Your task to perform on an android device: turn off sleep mode Image 0: 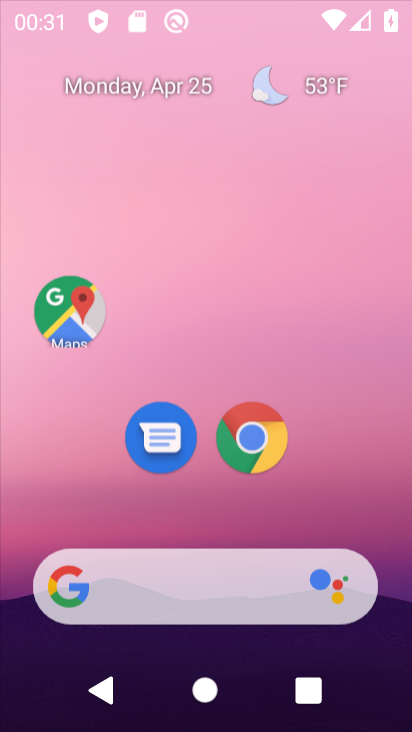
Step 0: drag from (310, 21) to (143, 1)
Your task to perform on an android device: turn off sleep mode Image 1: 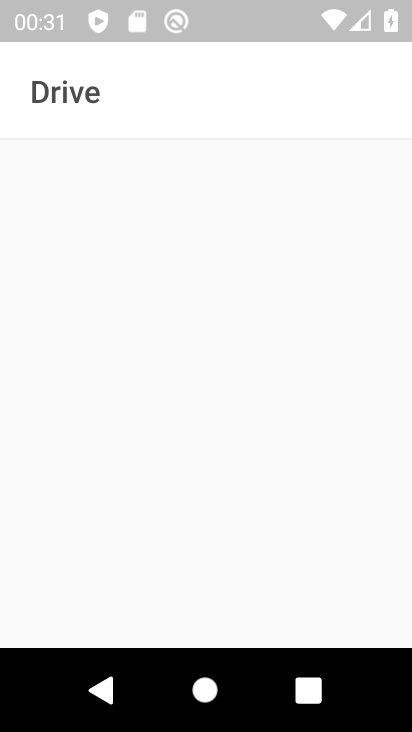
Step 1: press home button
Your task to perform on an android device: turn off sleep mode Image 2: 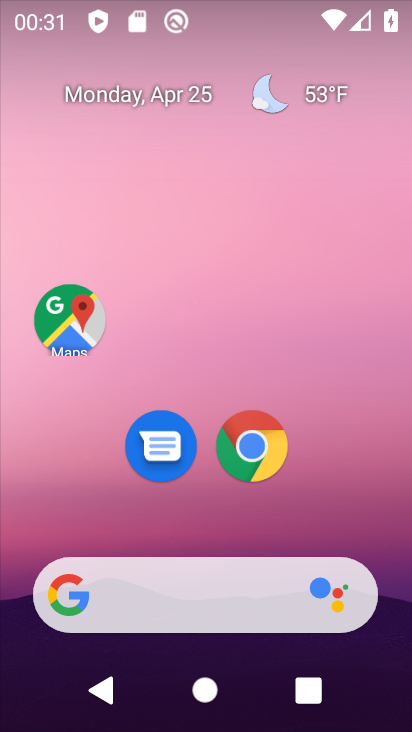
Step 2: drag from (208, 504) to (298, 0)
Your task to perform on an android device: turn off sleep mode Image 3: 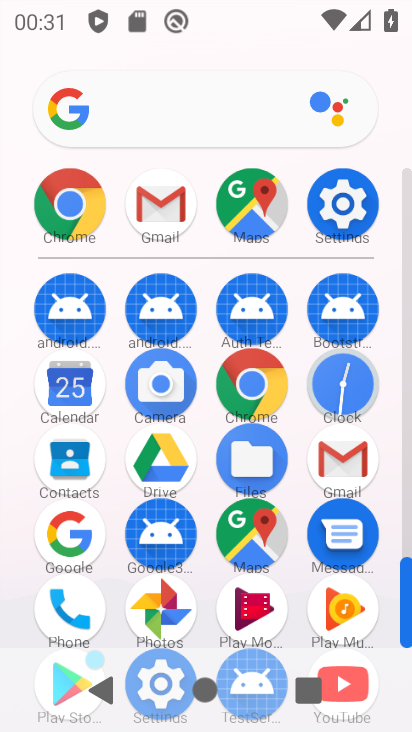
Step 3: click (348, 218)
Your task to perform on an android device: turn off sleep mode Image 4: 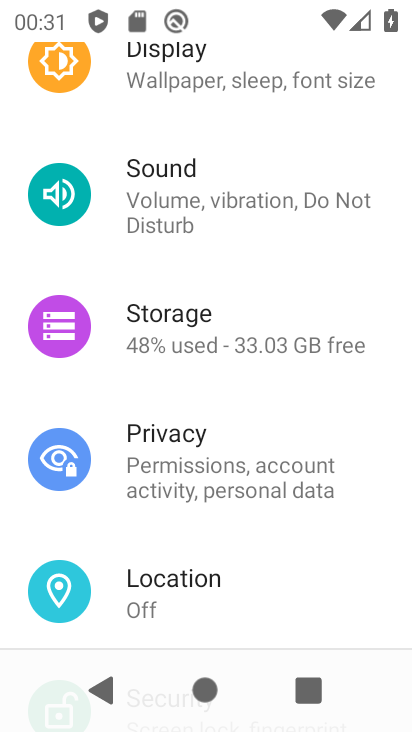
Step 4: drag from (185, 133) to (96, 670)
Your task to perform on an android device: turn off sleep mode Image 5: 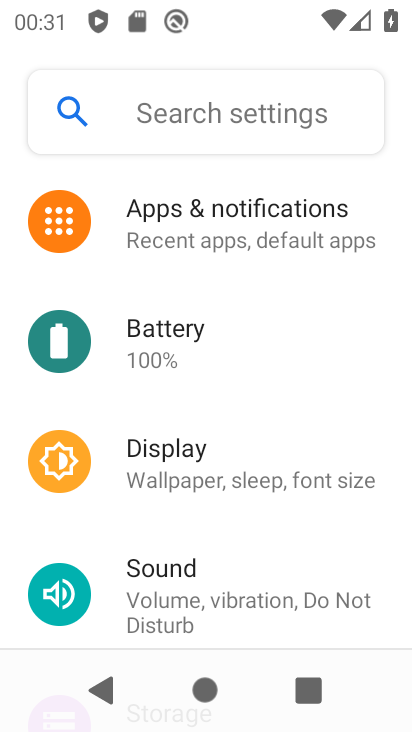
Step 5: click (210, 115)
Your task to perform on an android device: turn off sleep mode Image 6: 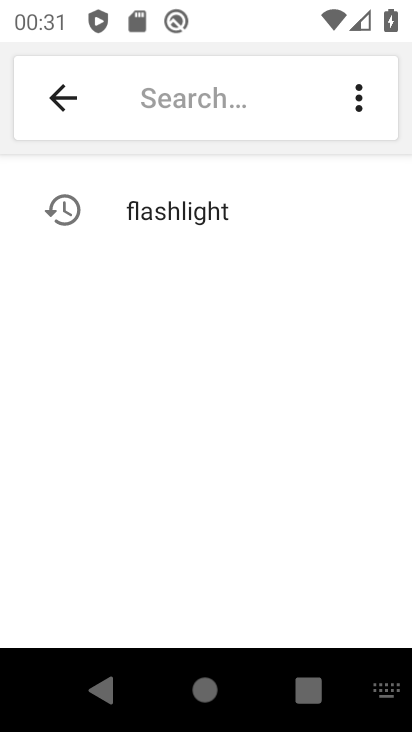
Step 6: type "sleep mode"
Your task to perform on an android device: turn off sleep mode Image 7: 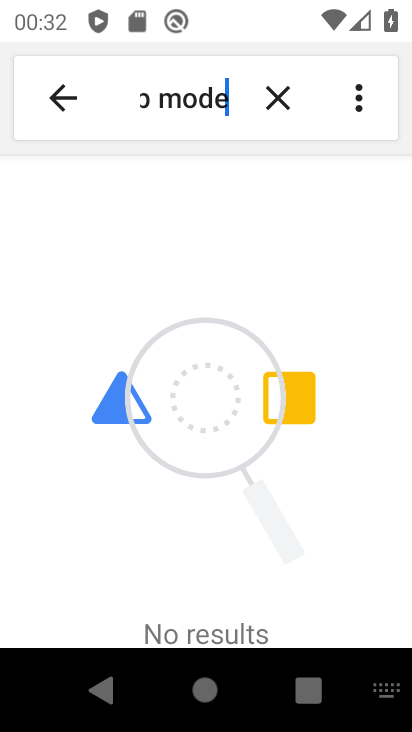
Step 7: task complete